Your task to perform on an android device: Open settings Image 0: 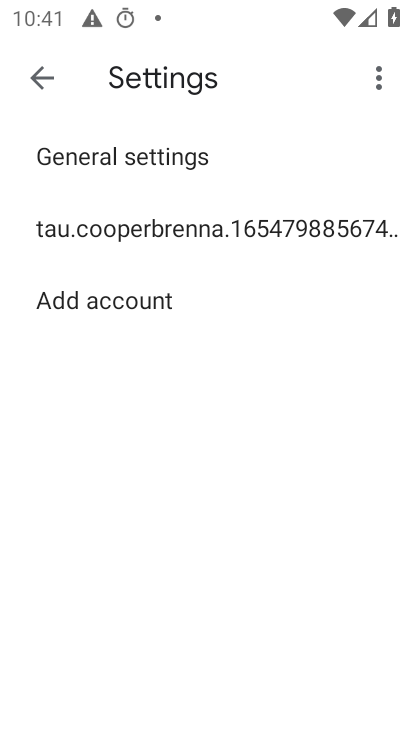
Step 0: press home button
Your task to perform on an android device: Open settings Image 1: 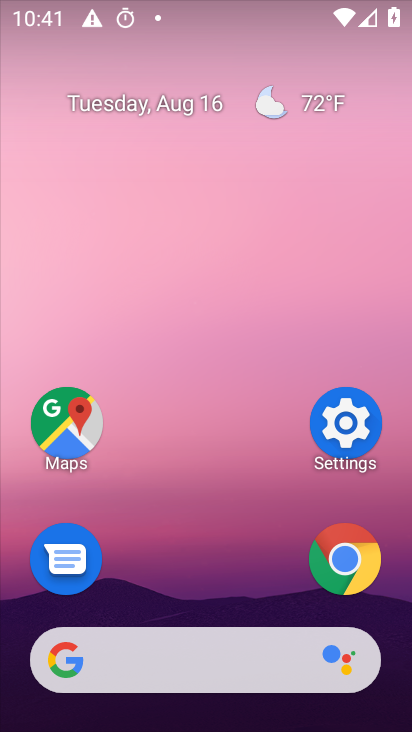
Step 1: click (354, 415)
Your task to perform on an android device: Open settings Image 2: 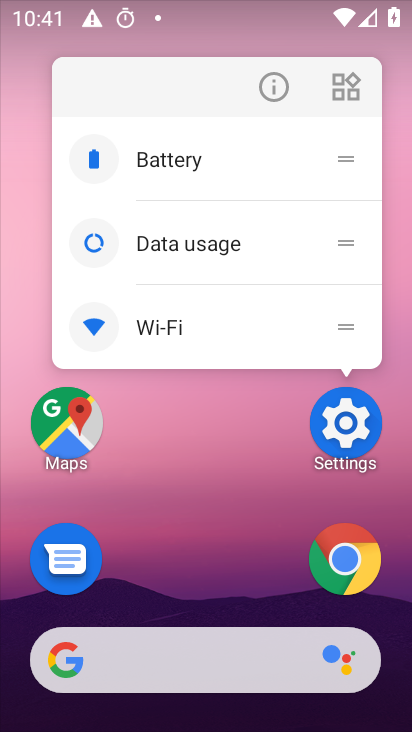
Step 2: click (343, 415)
Your task to perform on an android device: Open settings Image 3: 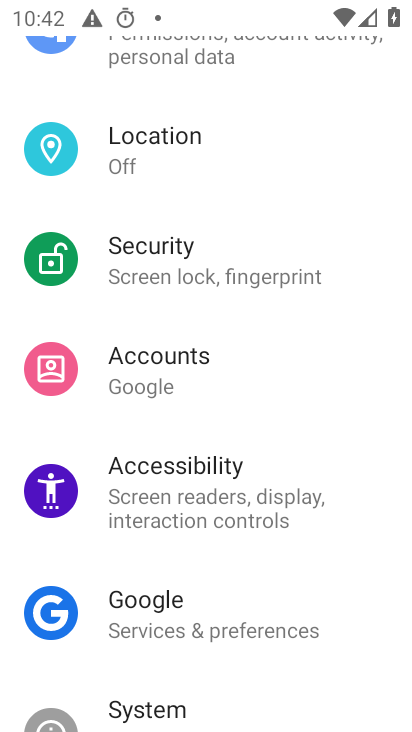
Step 3: task complete